Your task to perform on an android device: What's the weather? Image 0: 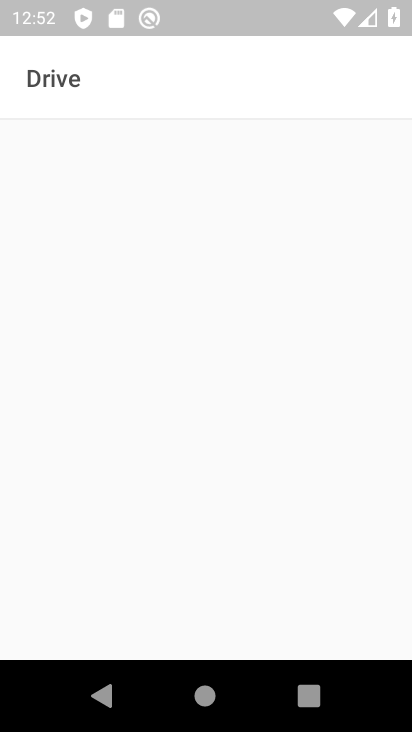
Step 0: press home button
Your task to perform on an android device: What's the weather? Image 1: 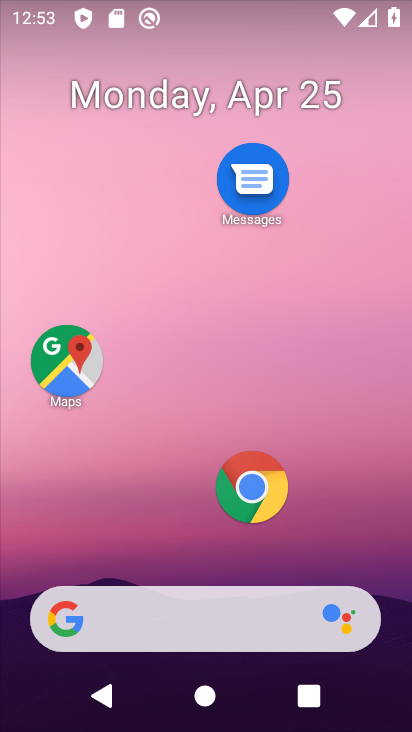
Step 1: drag from (225, 567) to (333, 21)
Your task to perform on an android device: What's the weather? Image 2: 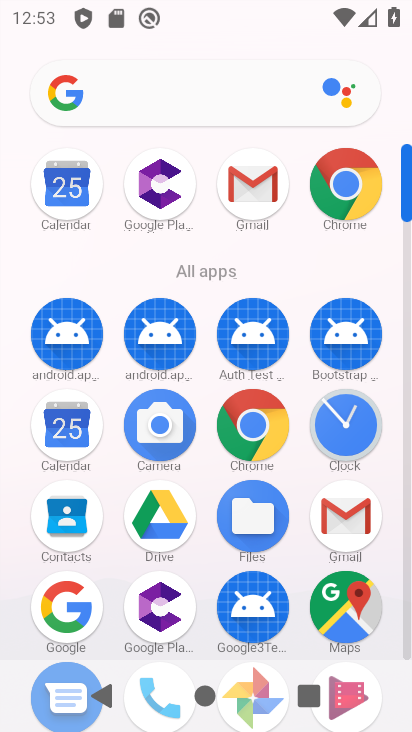
Step 2: drag from (204, 549) to (218, 104)
Your task to perform on an android device: What's the weather? Image 3: 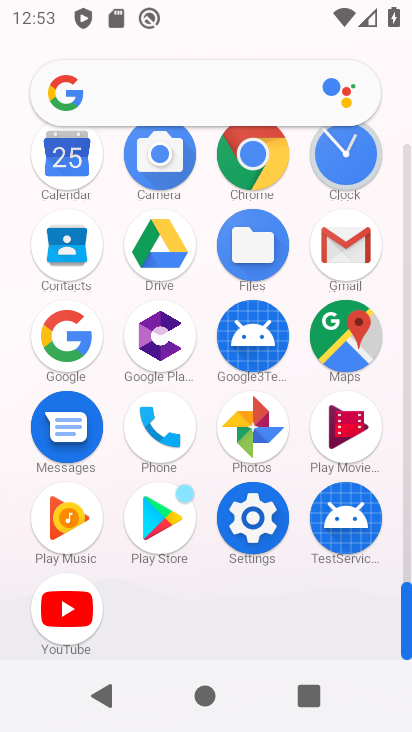
Step 3: click (252, 154)
Your task to perform on an android device: What's the weather? Image 4: 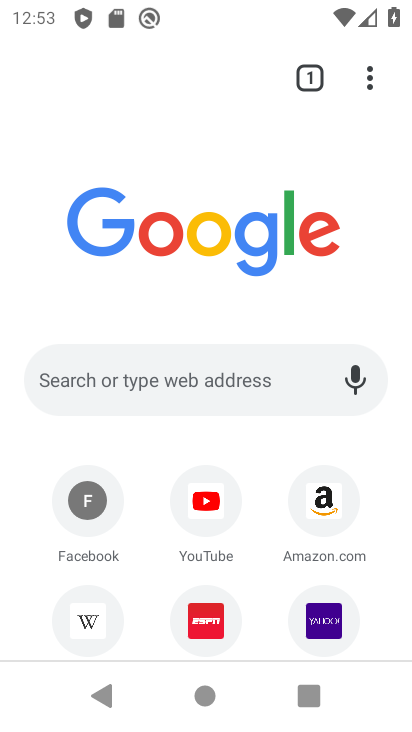
Step 4: click (244, 377)
Your task to perform on an android device: What's the weather? Image 5: 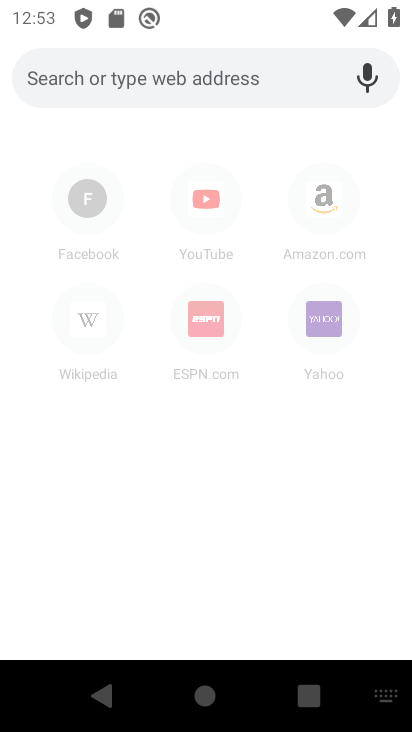
Step 5: type "weather"
Your task to perform on an android device: What's the weather? Image 6: 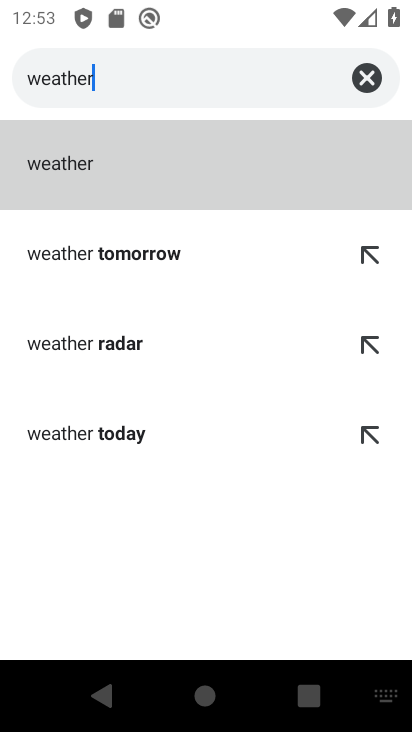
Step 6: click (322, 140)
Your task to perform on an android device: What's the weather? Image 7: 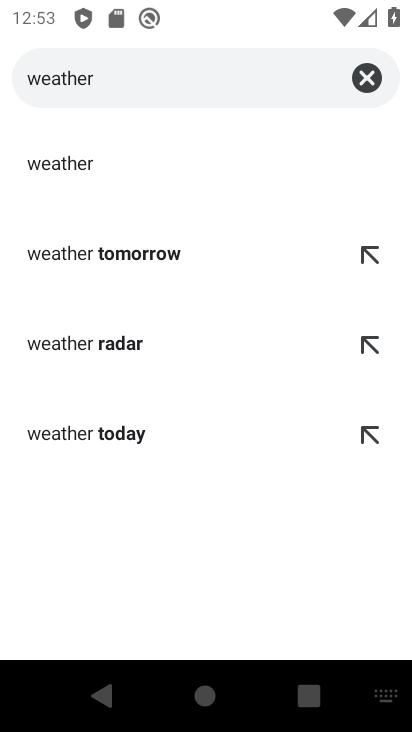
Step 7: click (163, 167)
Your task to perform on an android device: What's the weather? Image 8: 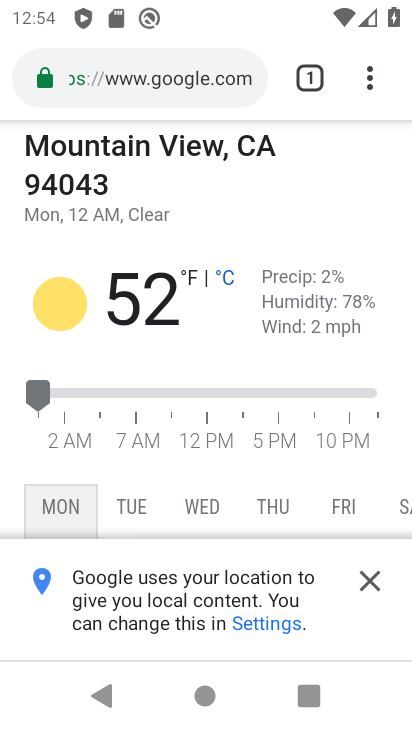
Step 8: task complete